Your task to perform on an android device: turn pop-ups off in chrome Image 0: 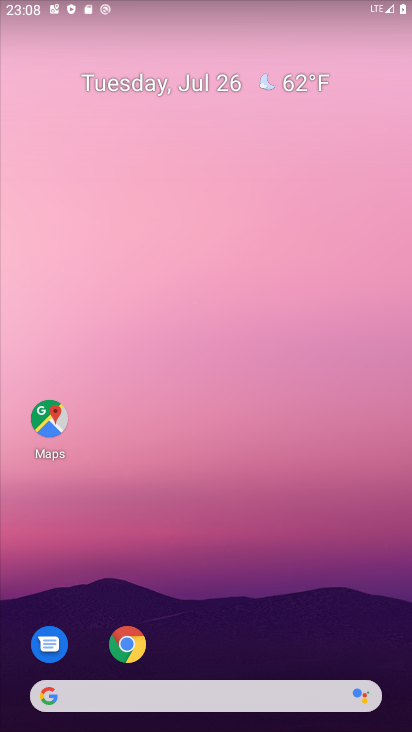
Step 0: click (129, 645)
Your task to perform on an android device: turn pop-ups off in chrome Image 1: 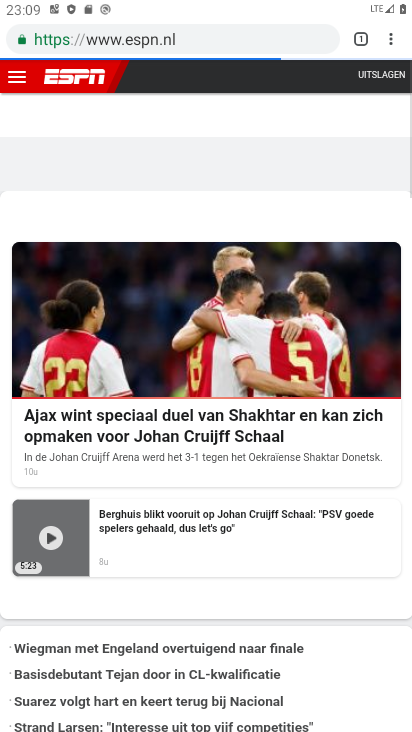
Step 1: click (393, 43)
Your task to perform on an android device: turn pop-ups off in chrome Image 2: 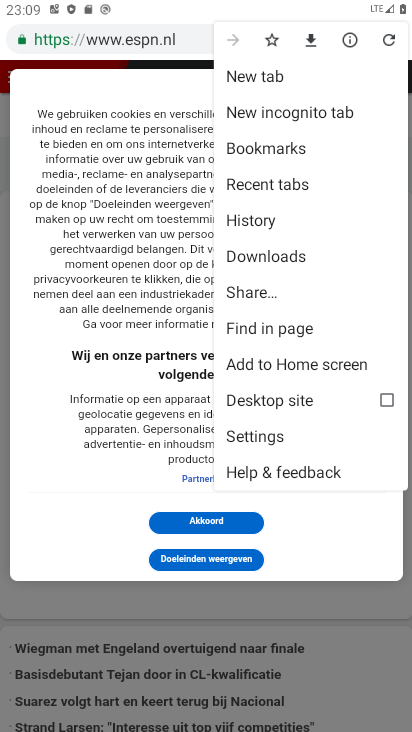
Step 2: click (247, 441)
Your task to perform on an android device: turn pop-ups off in chrome Image 3: 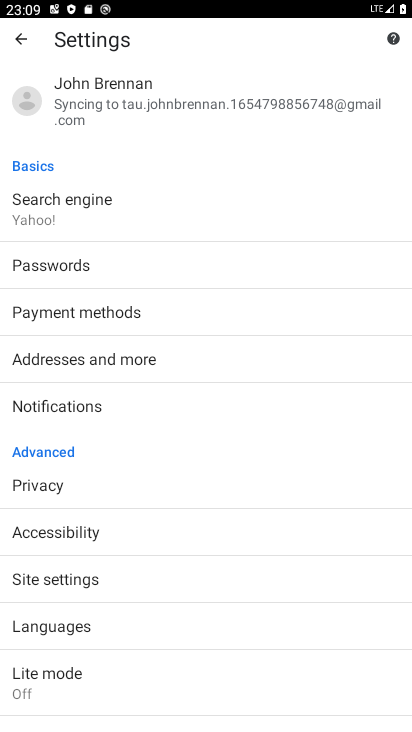
Step 3: click (45, 582)
Your task to perform on an android device: turn pop-ups off in chrome Image 4: 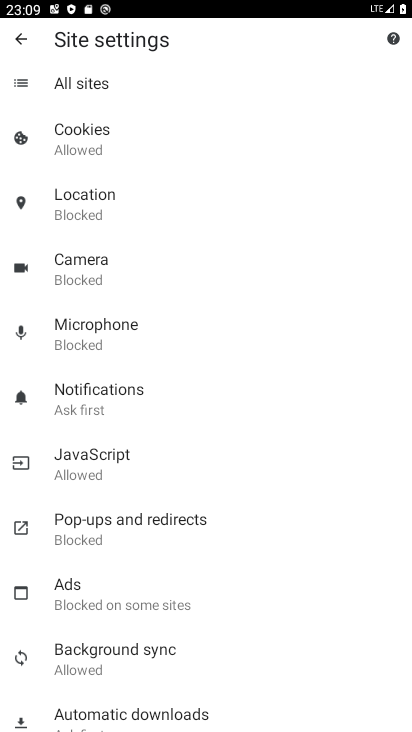
Step 4: click (71, 533)
Your task to perform on an android device: turn pop-ups off in chrome Image 5: 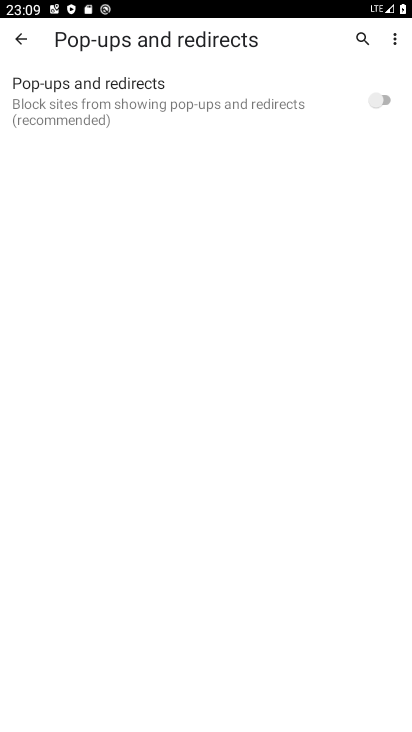
Step 5: task complete